Your task to perform on an android device: Empty the shopping cart on costco. Image 0: 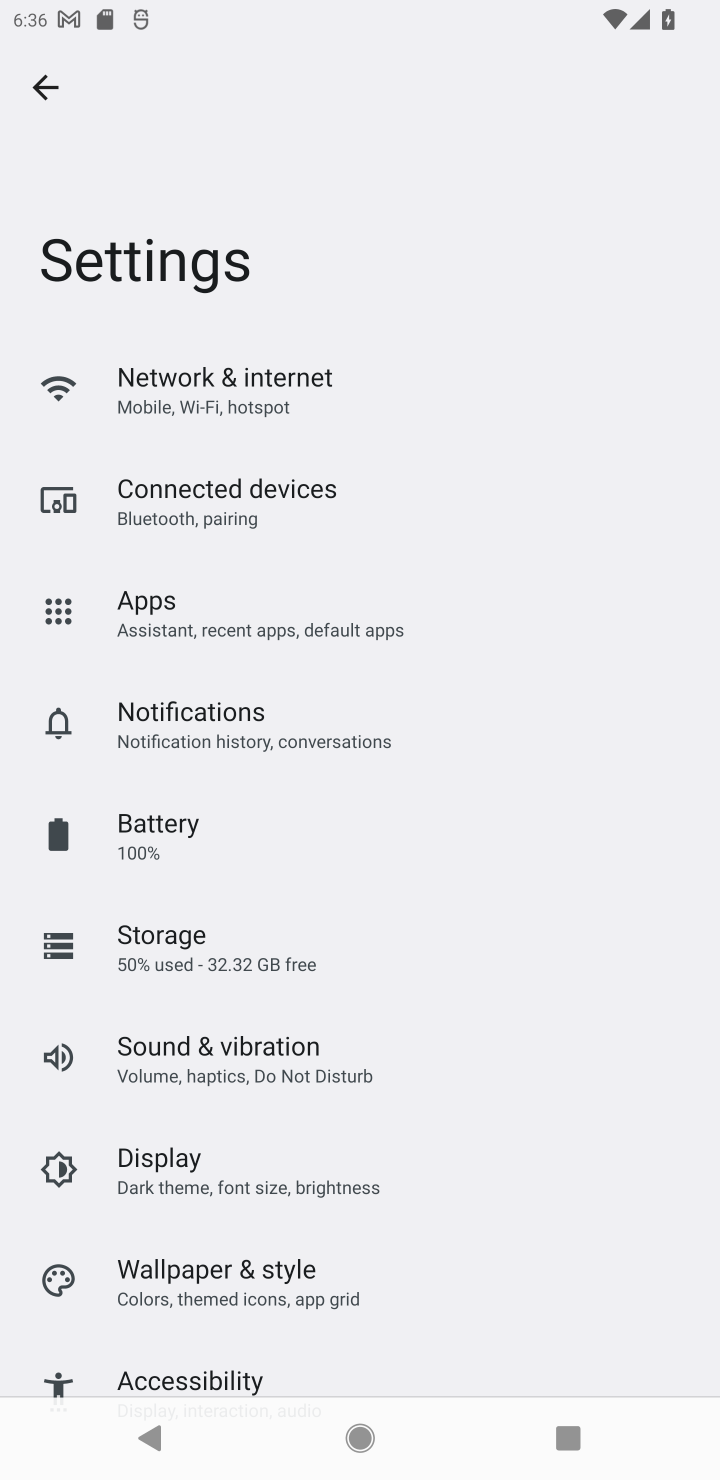
Step 0: press home button
Your task to perform on an android device: Empty the shopping cart on costco. Image 1: 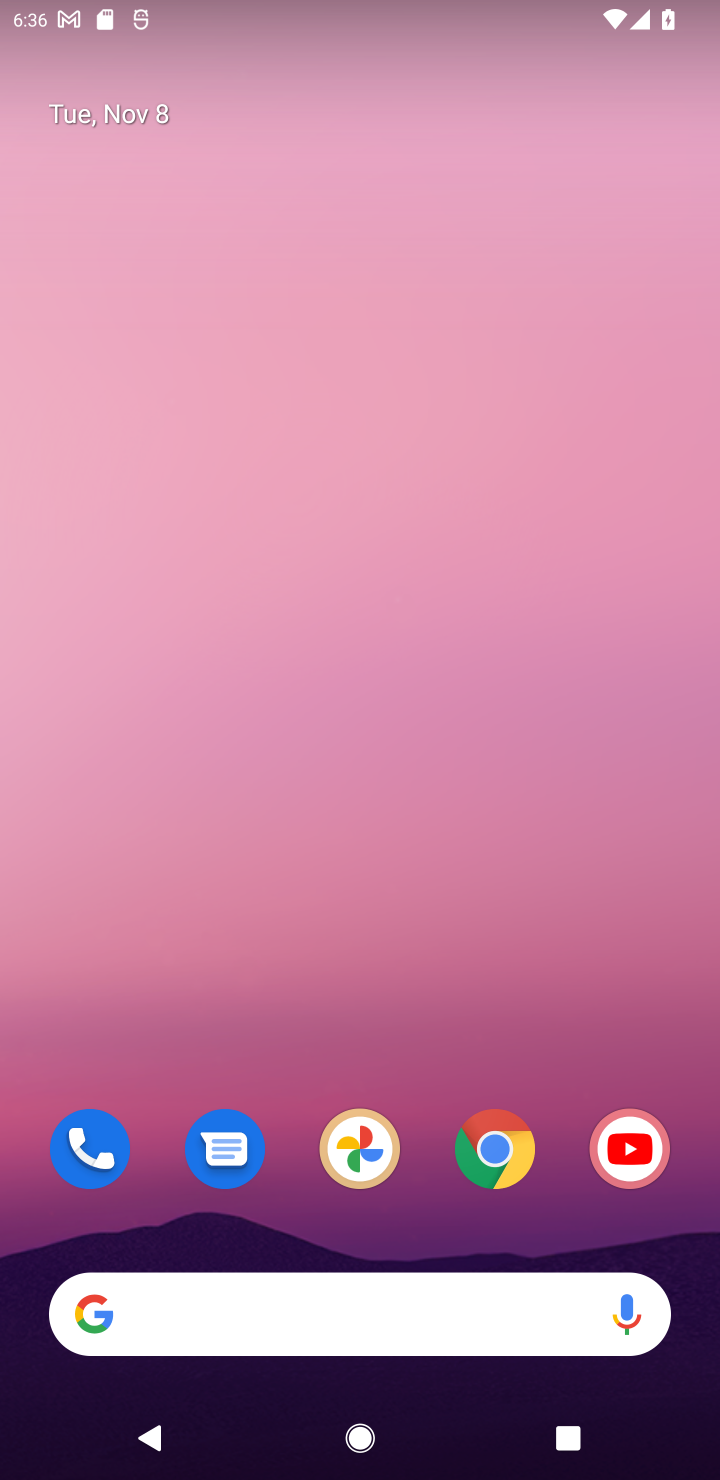
Step 1: click (502, 1151)
Your task to perform on an android device: Empty the shopping cart on costco. Image 2: 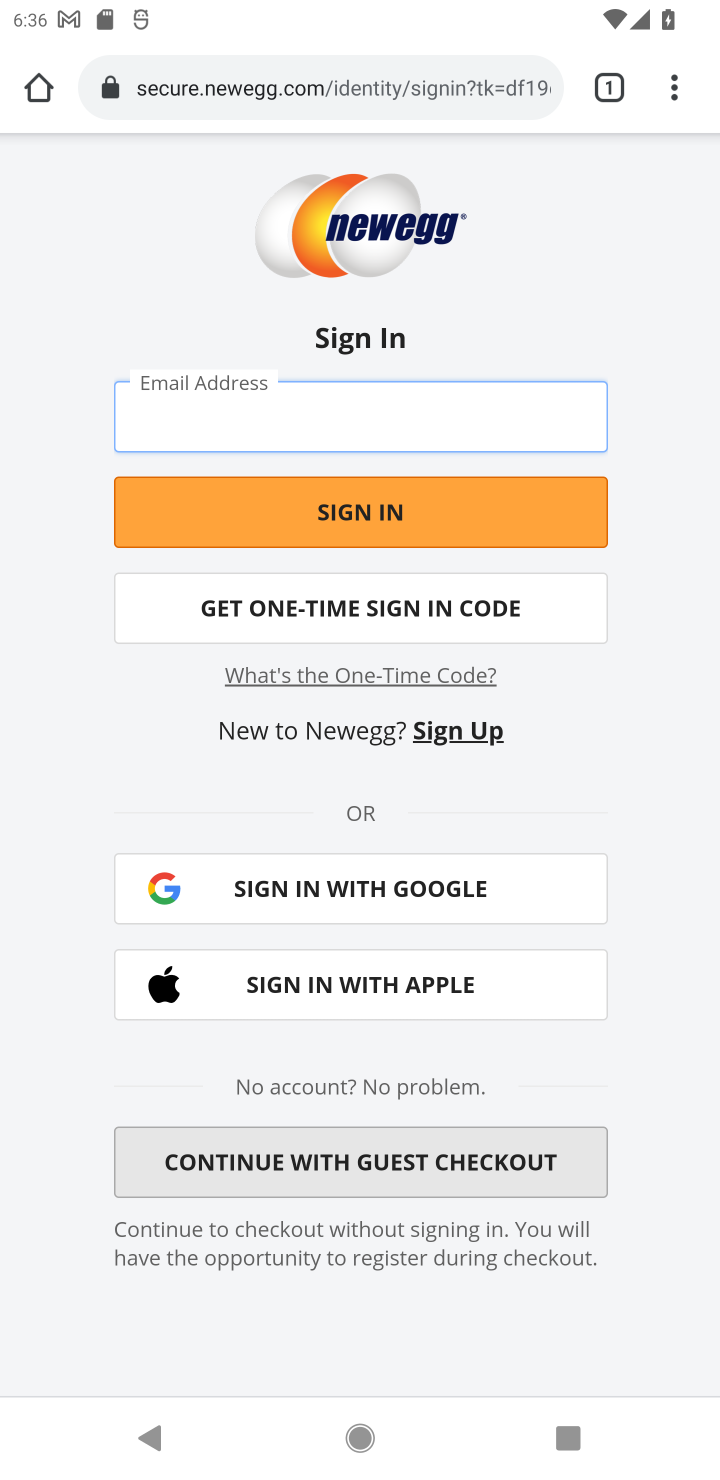
Step 2: click (313, 98)
Your task to perform on an android device: Empty the shopping cart on costco. Image 3: 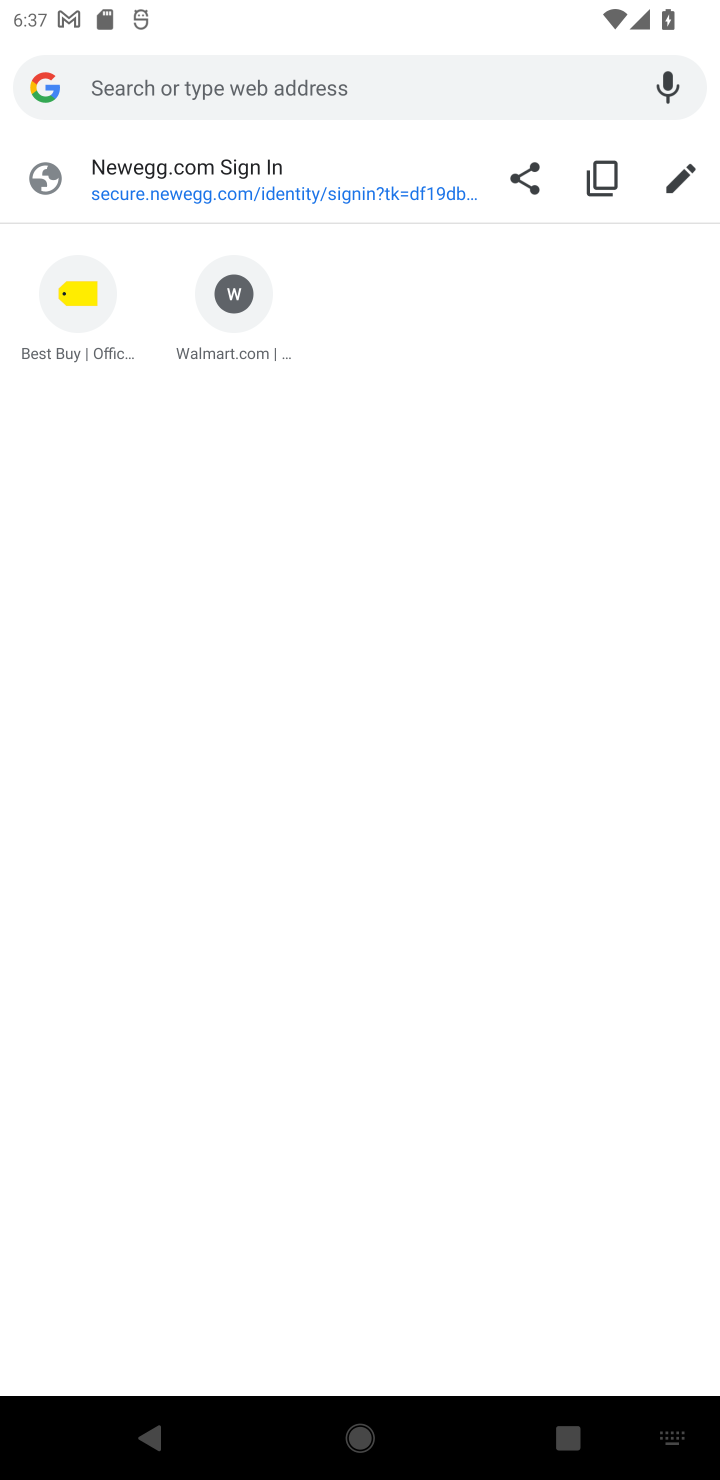
Step 3: type "costco"
Your task to perform on an android device: Empty the shopping cart on costco. Image 4: 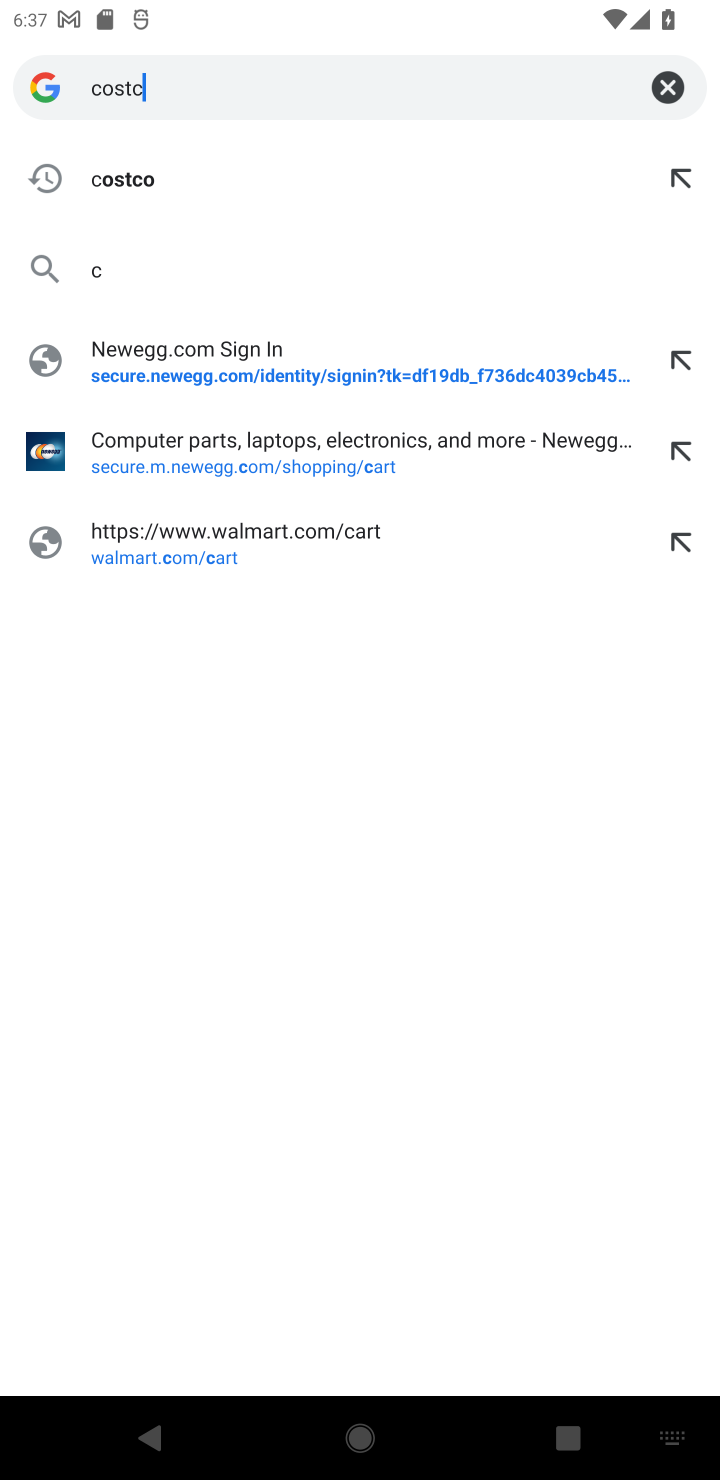
Step 4: press enter
Your task to perform on an android device: Empty the shopping cart on costco. Image 5: 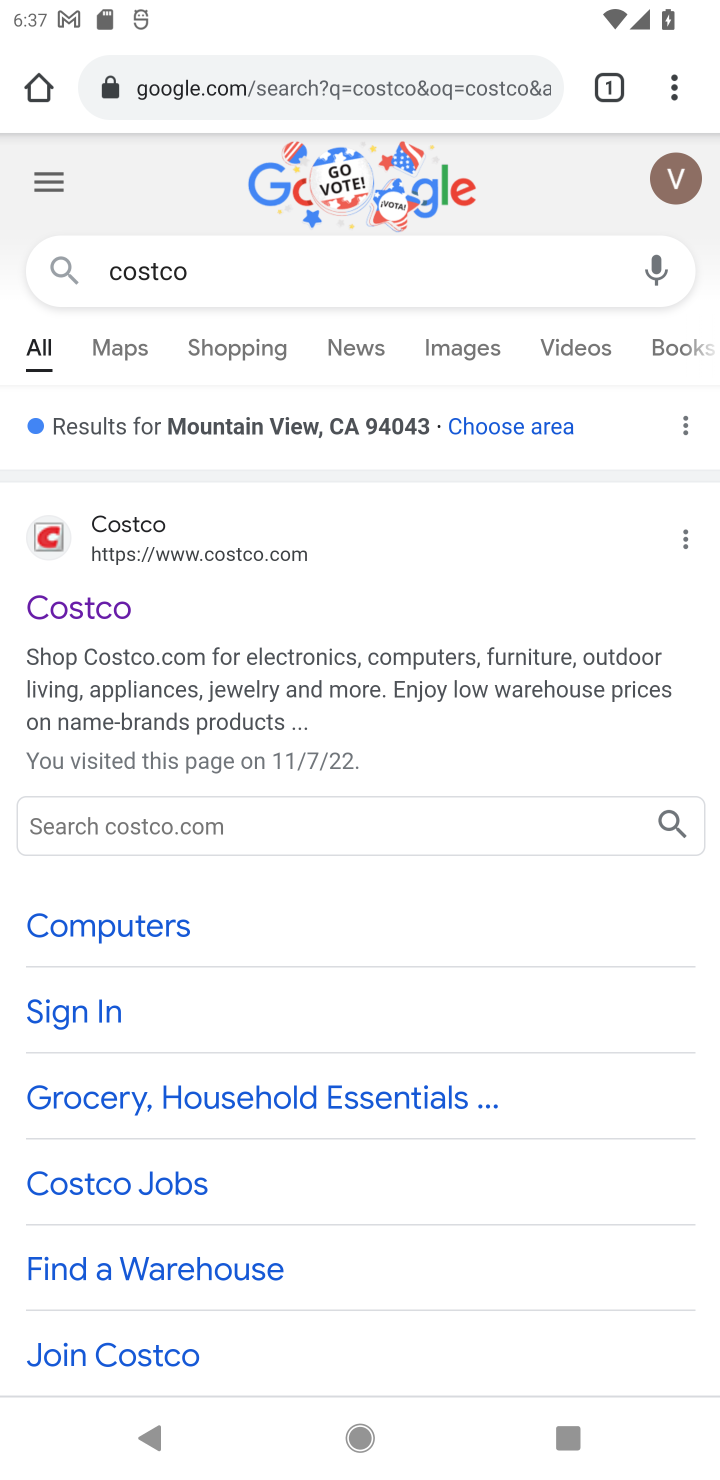
Step 5: click (213, 546)
Your task to perform on an android device: Empty the shopping cart on costco. Image 6: 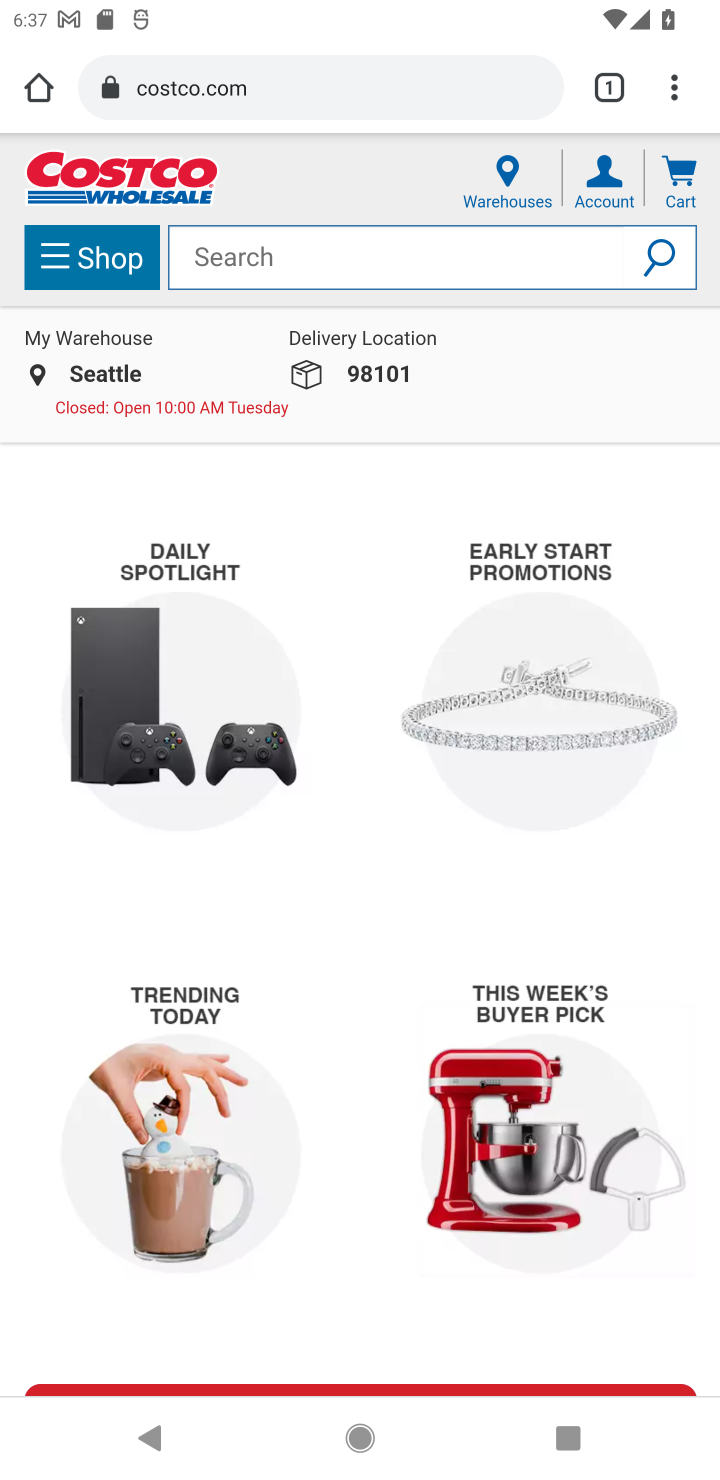
Step 6: click (681, 165)
Your task to perform on an android device: Empty the shopping cart on costco. Image 7: 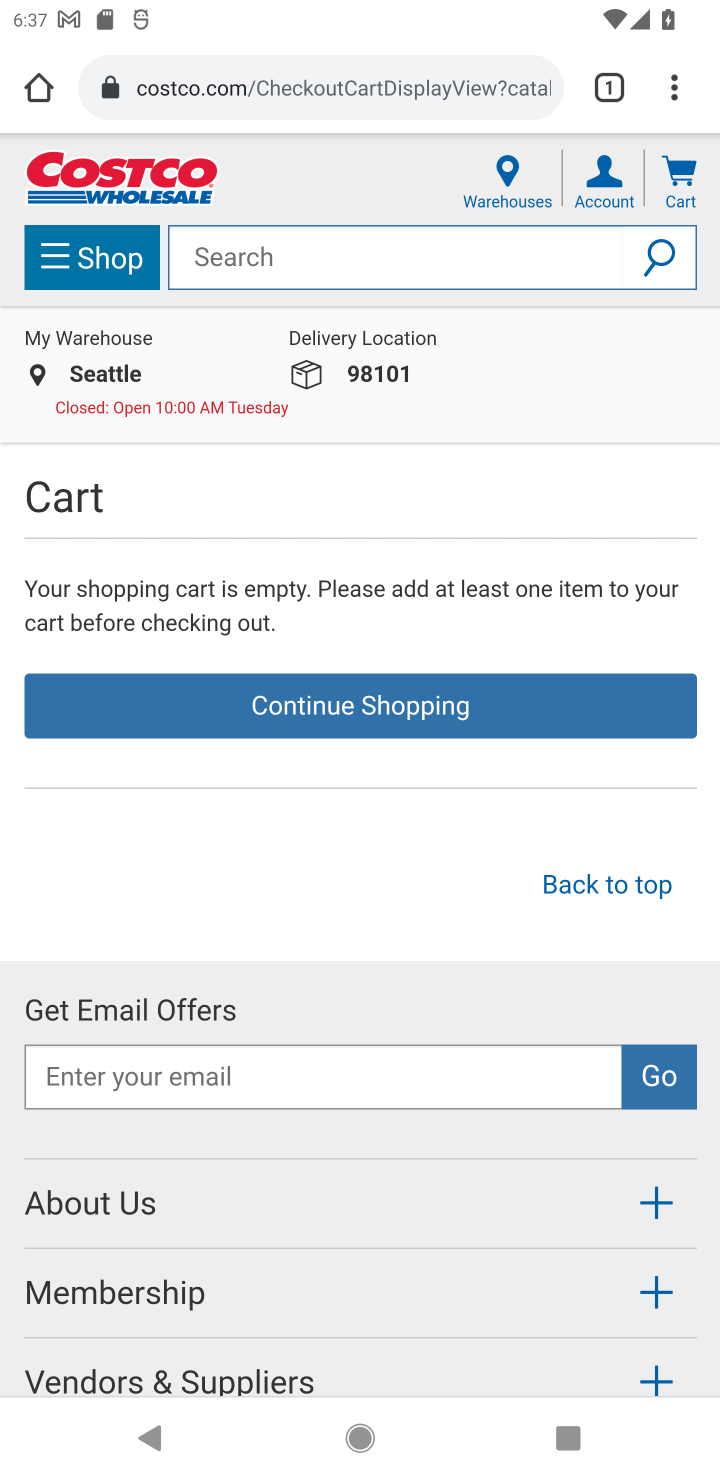
Step 7: task complete